Your task to perform on an android device: clear all cookies in the chrome app Image 0: 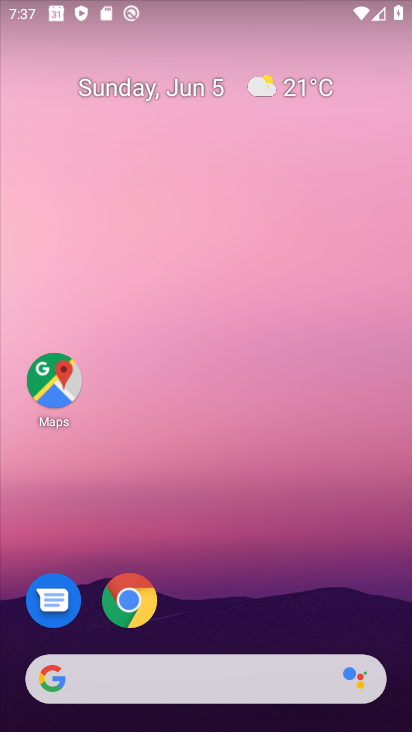
Step 0: click (131, 615)
Your task to perform on an android device: clear all cookies in the chrome app Image 1: 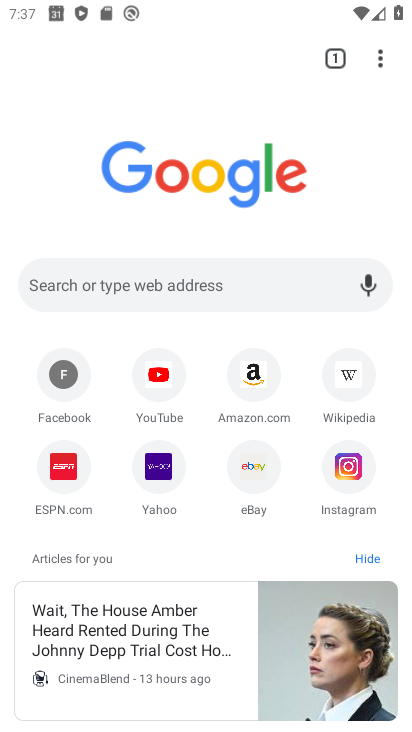
Step 1: click (379, 66)
Your task to perform on an android device: clear all cookies in the chrome app Image 2: 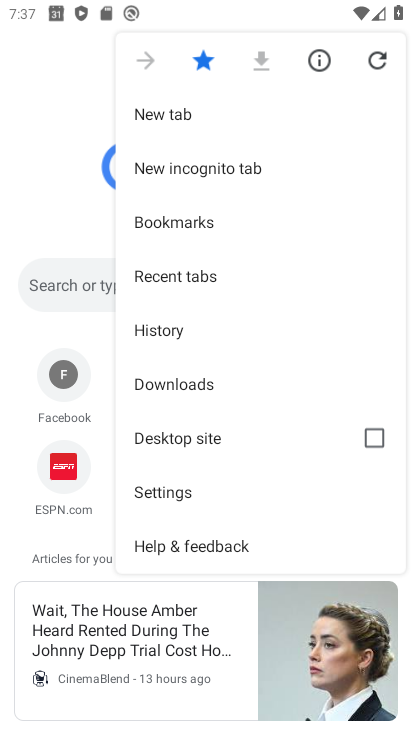
Step 2: click (176, 507)
Your task to perform on an android device: clear all cookies in the chrome app Image 3: 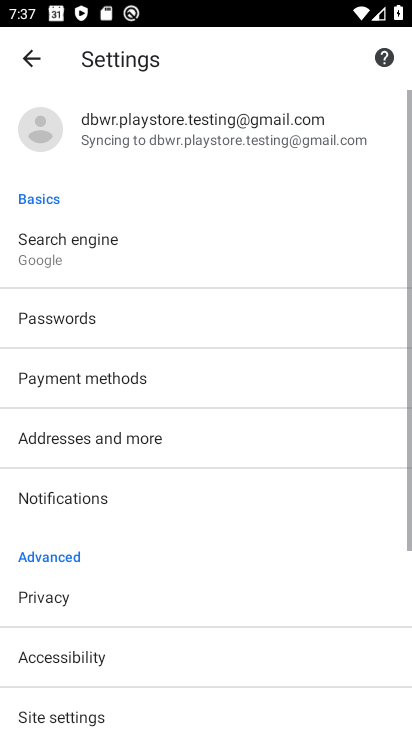
Step 3: click (82, 594)
Your task to perform on an android device: clear all cookies in the chrome app Image 4: 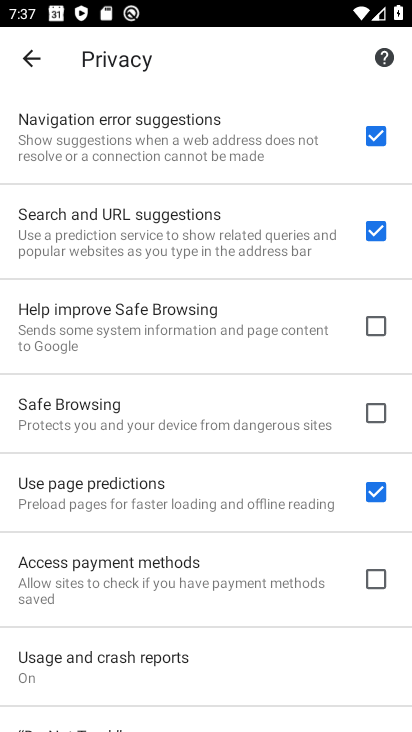
Step 4: drag from (229, 679) to (259, 261)
Your task to perform on an android device: clear all cookies in the chrome app Image 5: 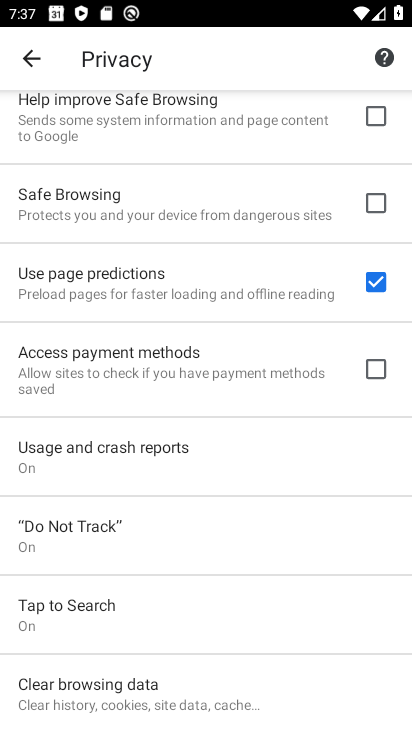
Step 5: click (192, 700)
Your task to perform on an android device: clear all cookies in the chrome app Image 6: 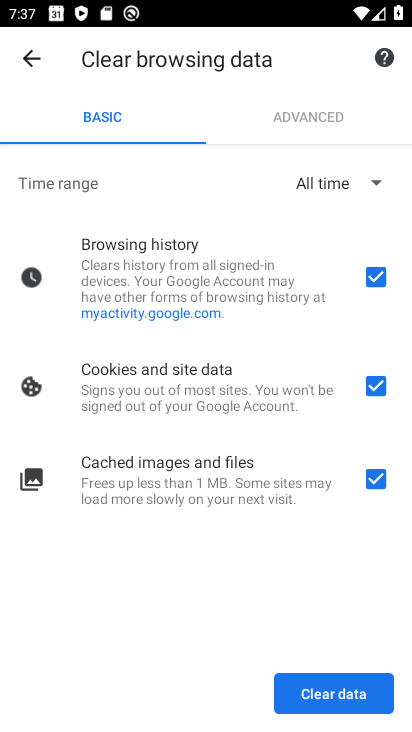
Step 6: click (373, 488)
Your task to perform on an android device: clear all cookies in the chrome app Image 7: 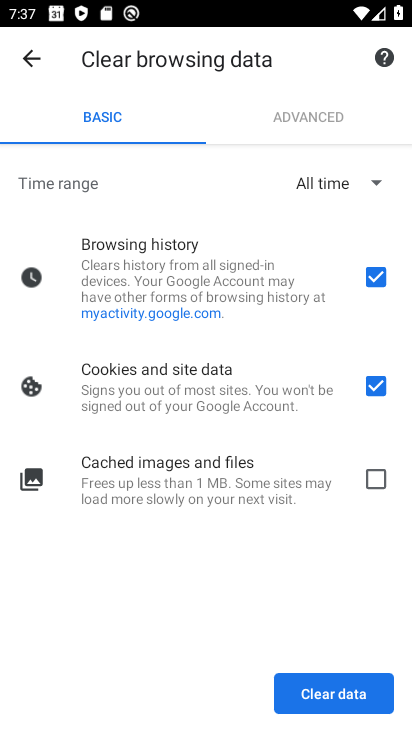
Step 7: click (380, 279)
Your task to perform on an android device: clear all cookies in the chrome app Image 8: 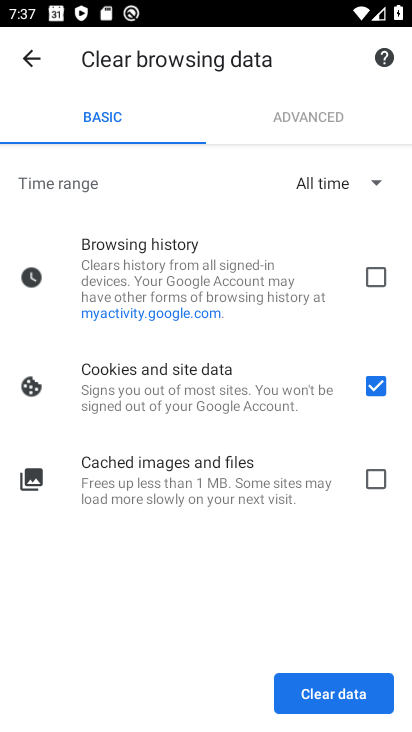
Step 8: click (356, 686)
Your task to perform on an android device: clear all cookies in the chrome app Image 9: 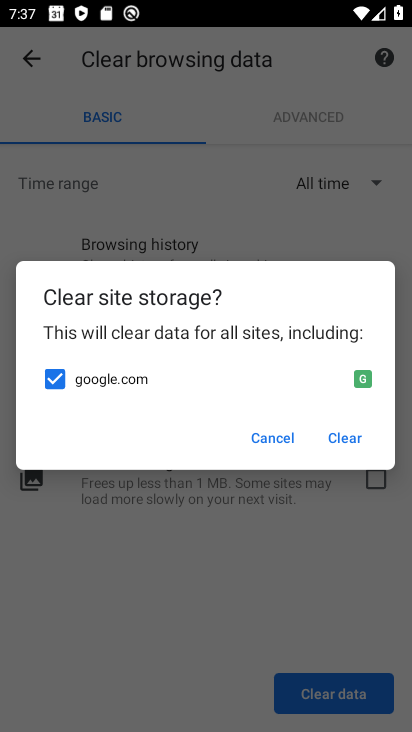
Step 9: click (346, 445)
Your task to perform on an android device: clear all cookies in the chrome app Image 10: 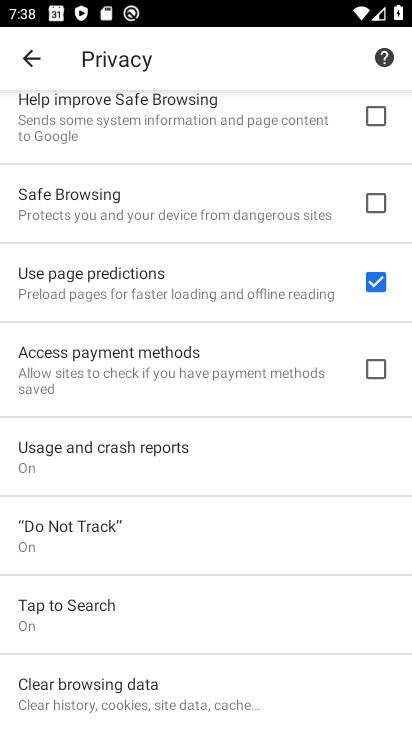
Step 10: task complete